Your task to perform on an android device: Do I have any events tomorrow? Image 0: 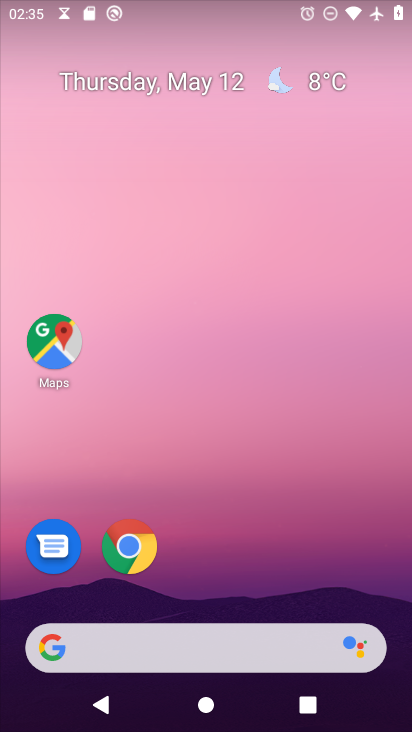
Step 0: drag from (191, 634) to (328, 165)
Your task to perform on an android device: Do I have any events tomorrow? Image 1: 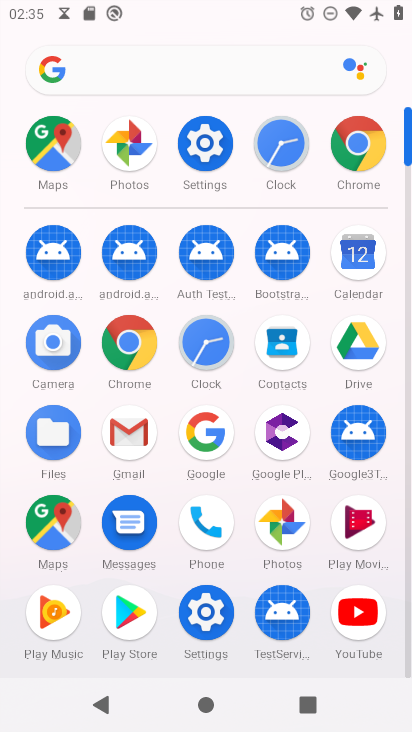
Step 1: click (359, 252)
Your task to perform on an android device: Do I have any events tomorrow? Image 2: 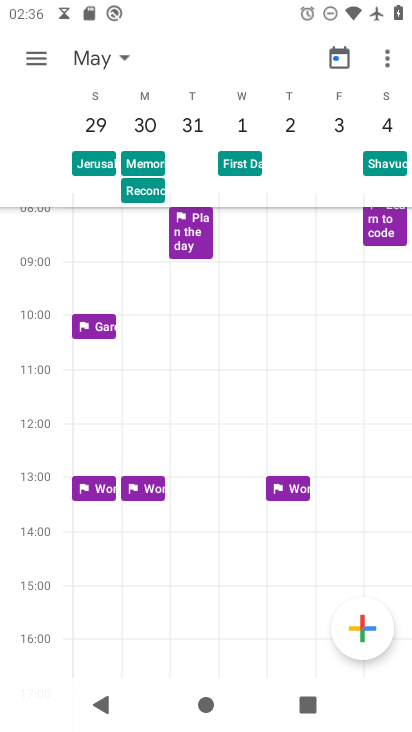
Step 2: click (105, 61)
Your task to perform on an android device: Do I have any events tomorrow? Image 3: 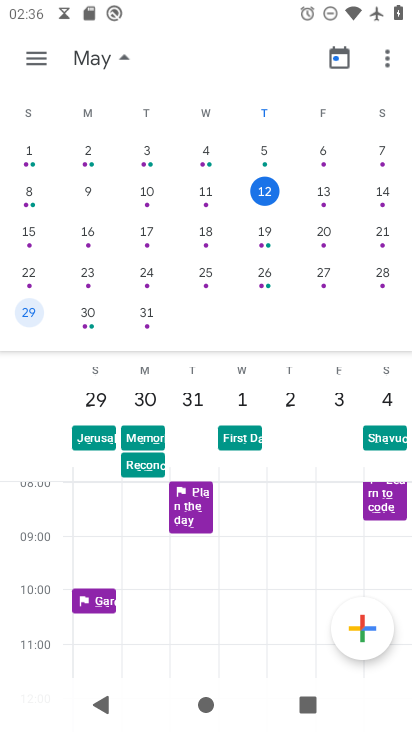
Step 3: click (323, 189)
Your task to perform on an android device: Do I have any events tomorrow? Image 4: 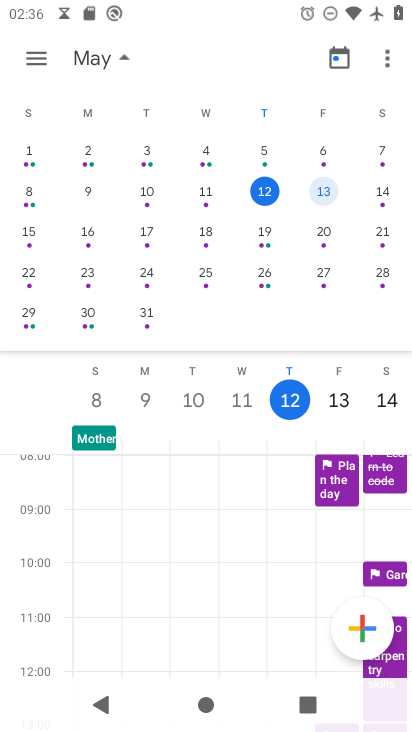
Step 4: click (41, 59)
Your task to perform on an android device: Do I have any events tomorrow? Image 5: 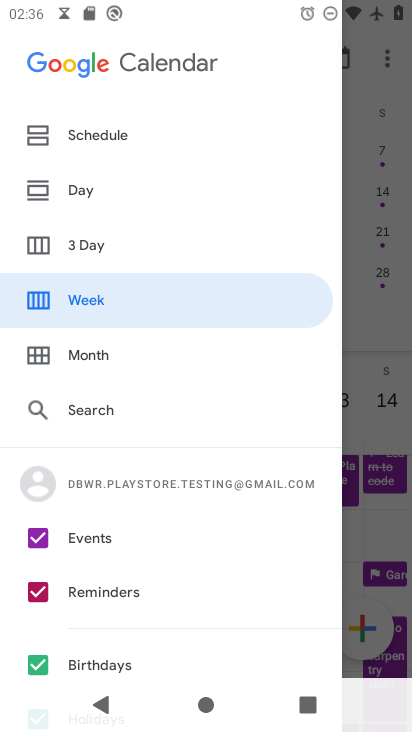
Step 5: click (101, 134)
Your task to perform on an android device: Do I have any events tomorrow? Image 6: 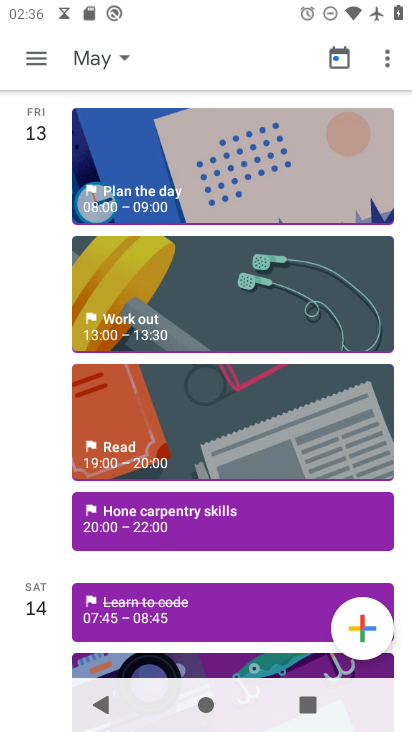
Step 6: click (128, 524)
Your task to perform on an android device: Do I have any events tomorrow? Image 7: 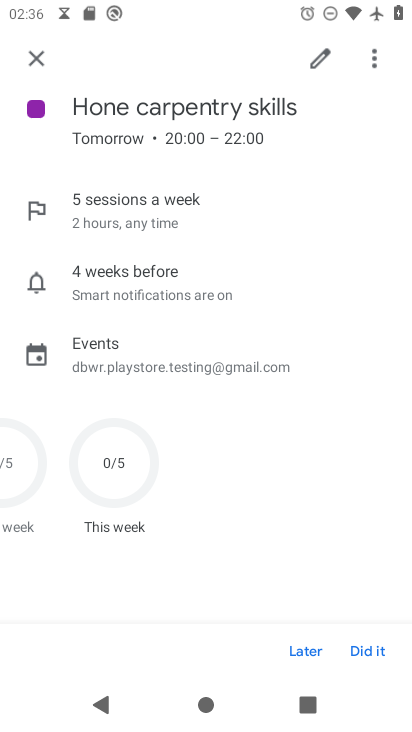
Step 7: task complete